Your task to perform on an android device: toggle javascript in the chrome app Image 0: 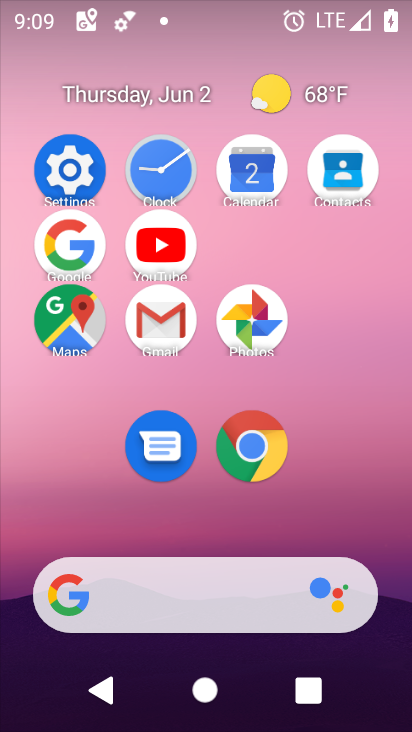
Step 0: click (264, 421)
Your task to perform on an android device: toggle javascript in the chrome app Image 1: 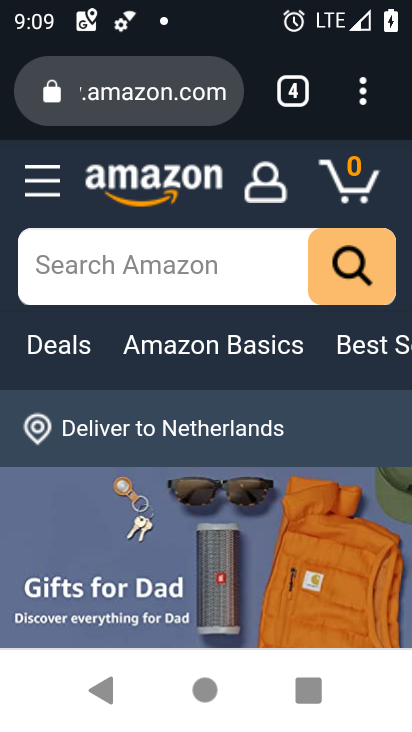
Step 1: click (362, 450)
Your task to perform on an android device: toggle javascript in the chrome app Image 2: 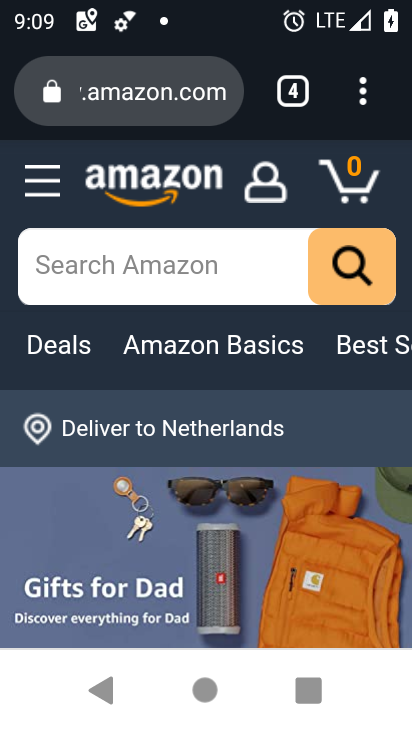
Step 2: click (375, 91)
Your task to perform on an android device: toggle javascript in the chrome app Image 3: 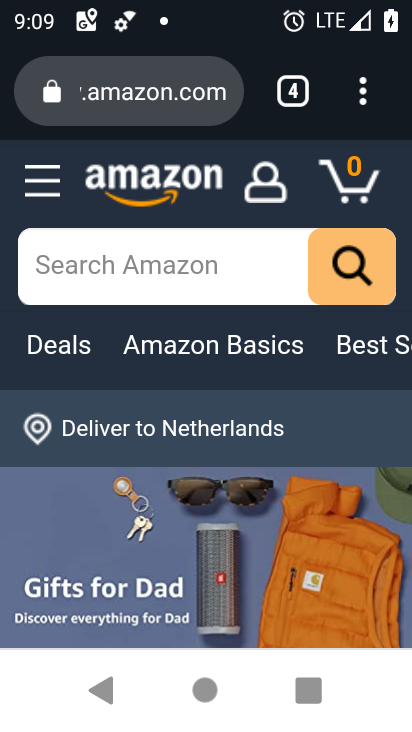
Step 3: click (350, 74)
Your task to perform on an android device: toggle javascript in the chrome app Image 4: 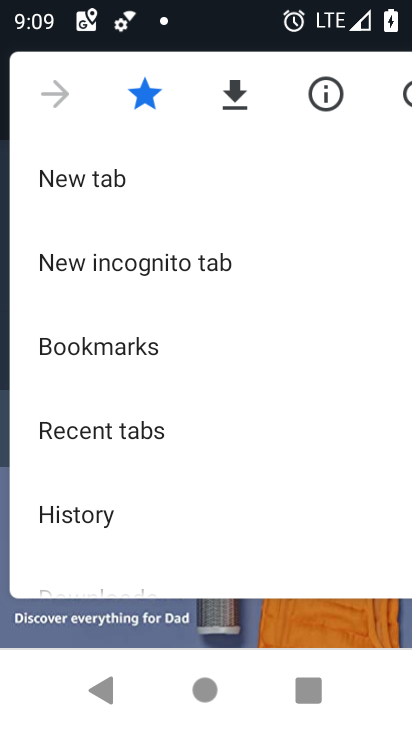
Step 4: drag from (260, 399) to (248, 123)
Your task to perform on an android device: toggle javascript in the chrome app Image 5: 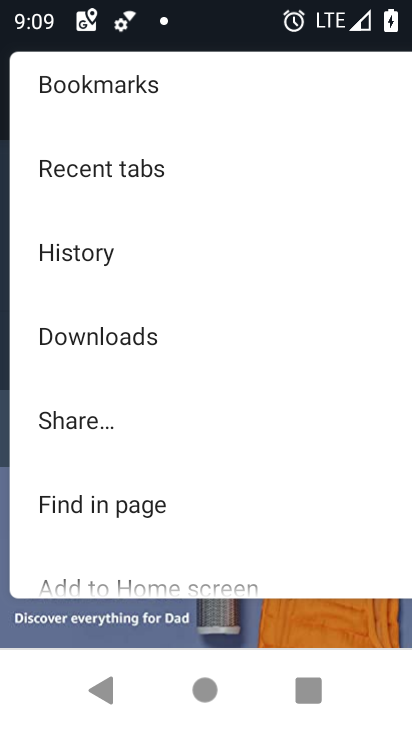
Step 5: drag from (167, 485) to (192, 155)
Your task to perform on an android device: toggle javascript in the chrome app Image 6: 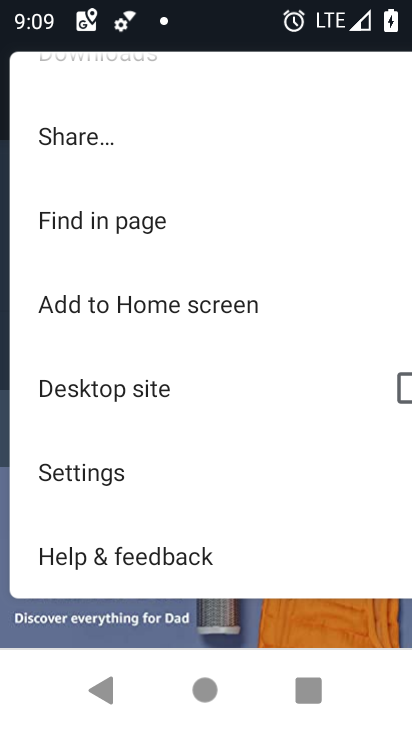
Step 6: click (164, 466)
Your task to perform on an android device: toggle javascript in the chrome app Image 7: 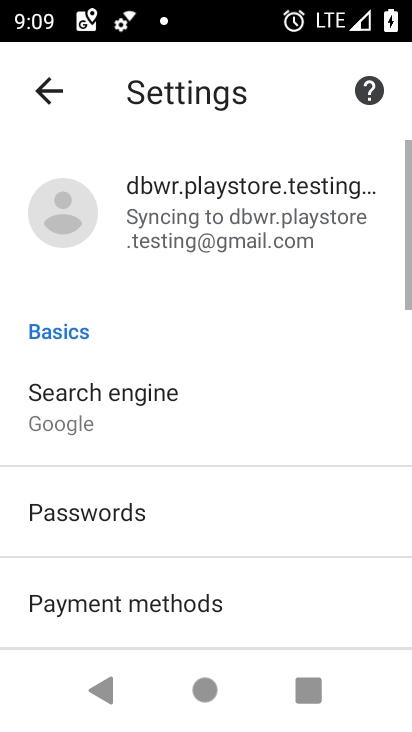
Step 7: drag from (166, 452) to (192, 113)
Your task to perform on an android device: toggle javascript in the chrome app Image 8: 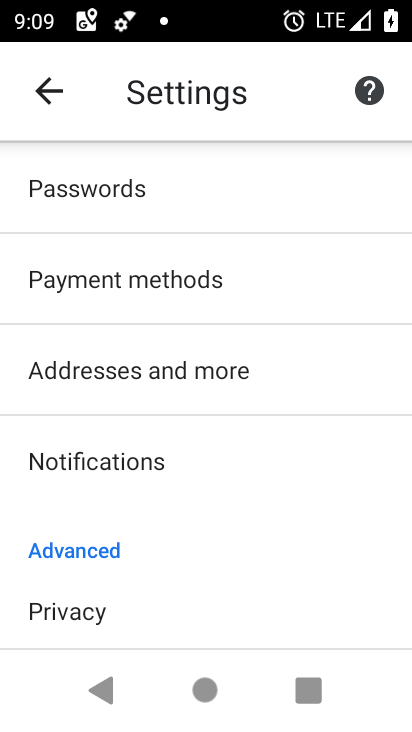
Step 8: drag from (235, 487) to (231, 153)
Your task to perform on an android device: toggle javascript in the chrome app Image 9: 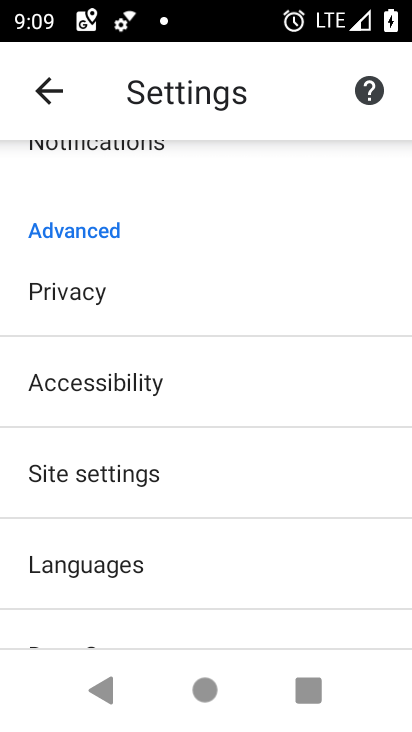
Step 9: click (245, 477)
Your task to perform on an android device: toggle javascript in the chrome app Image 10: 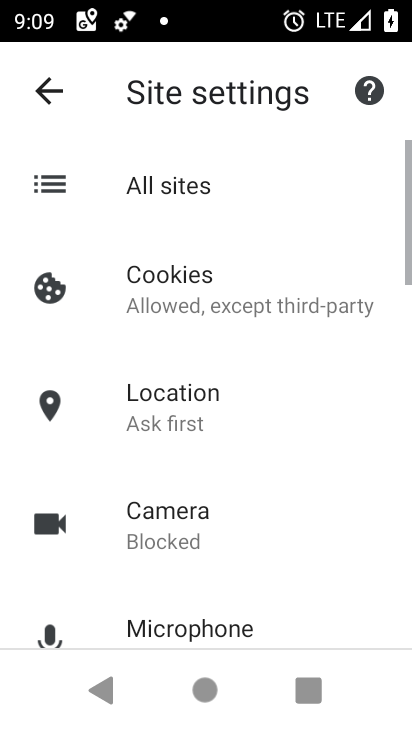
Step 10: drag from (245, 477) to (233, 133)
Your task to perform on an android device: toggle javascript in the chrome app Image 11: 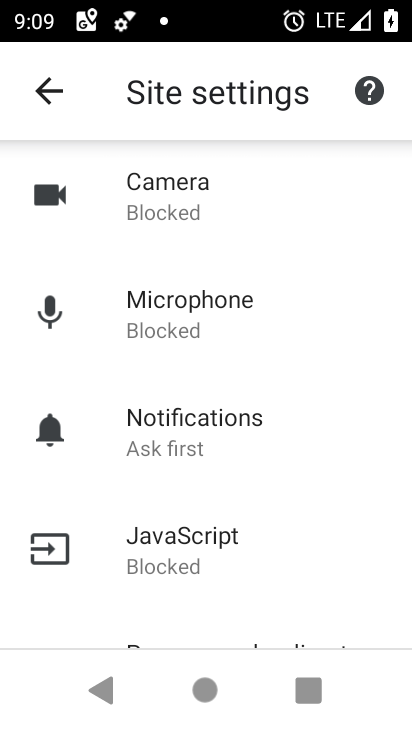
Step 11: click (253, 543)
Your task to perform on an android device: toggle javascript in the chrome app Image 12: 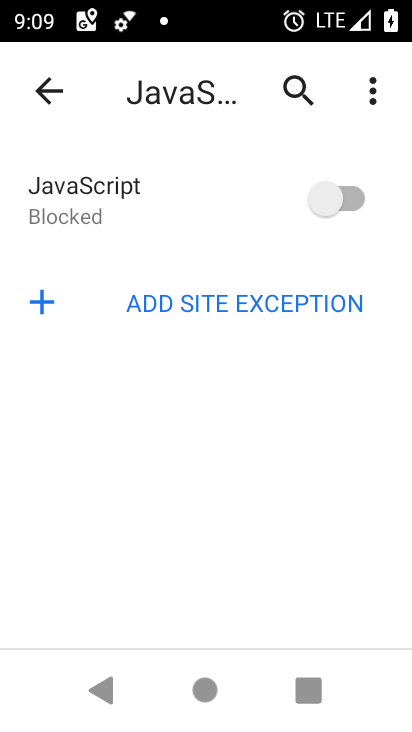
Step 12: click (341, 201)
Your task to perform on an android device: toggle javascript in the chrome app Image 13: 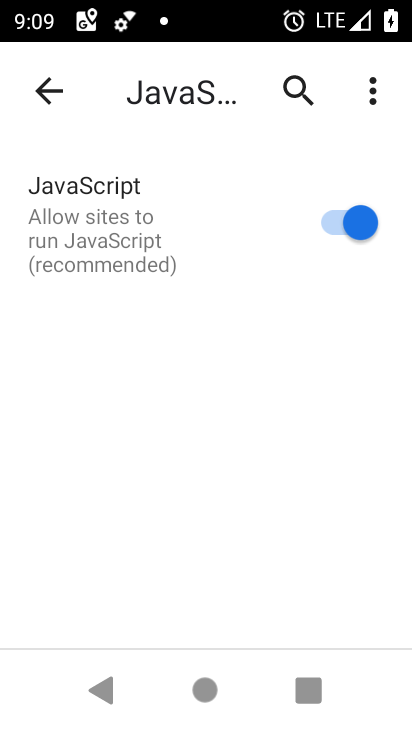
Step 13: task complete